Your task to perform on an android device: find photos in the google photos app Image 0: 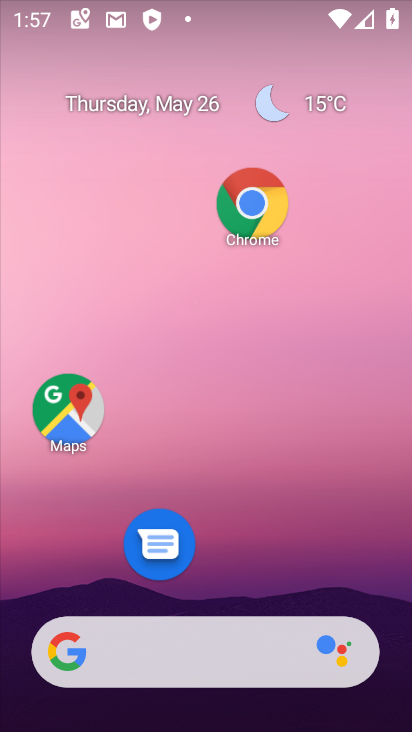
Step 0: drag from (221, 726) to (221, 193)
Your task to perform on an android device: find photos in the google photos app Image 1: 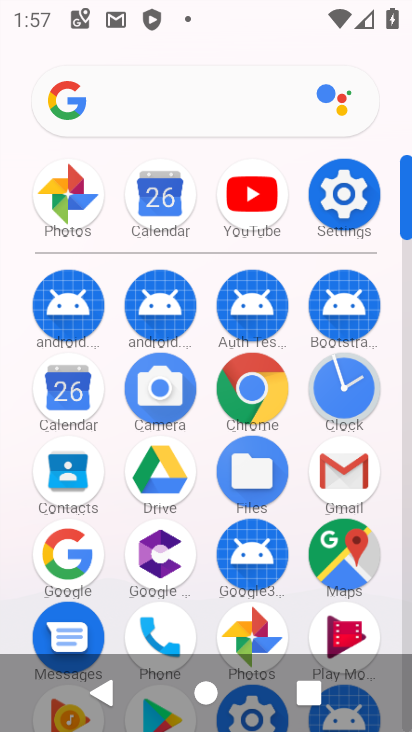
Step 1: click (271, 630)
Your task to perform on an android device: find photos in the google photos app Image 2: 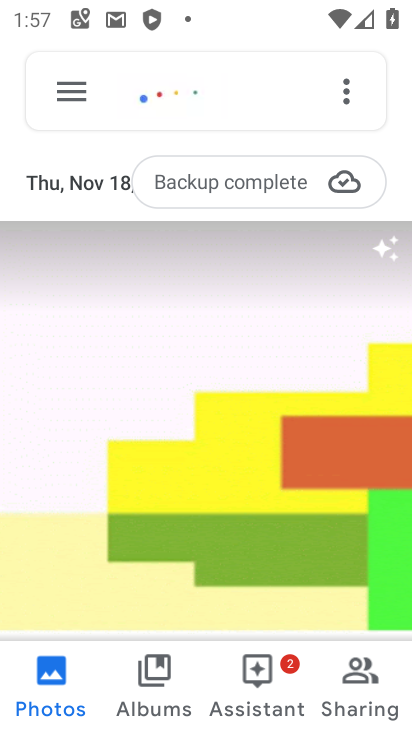
Step 2: task complete